Your task to perform on an android device: What's on my calendar today? Image 0: 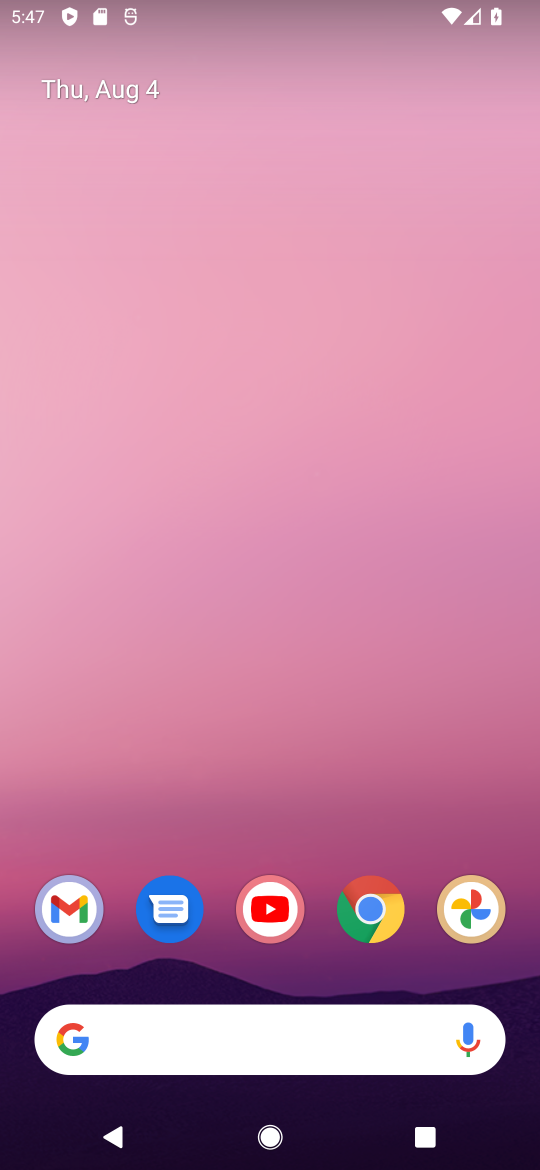
Step 0: drag from (298, 846) to (443, 116)
Your task to perform on an android device: What's on my calendar today? Image 1: 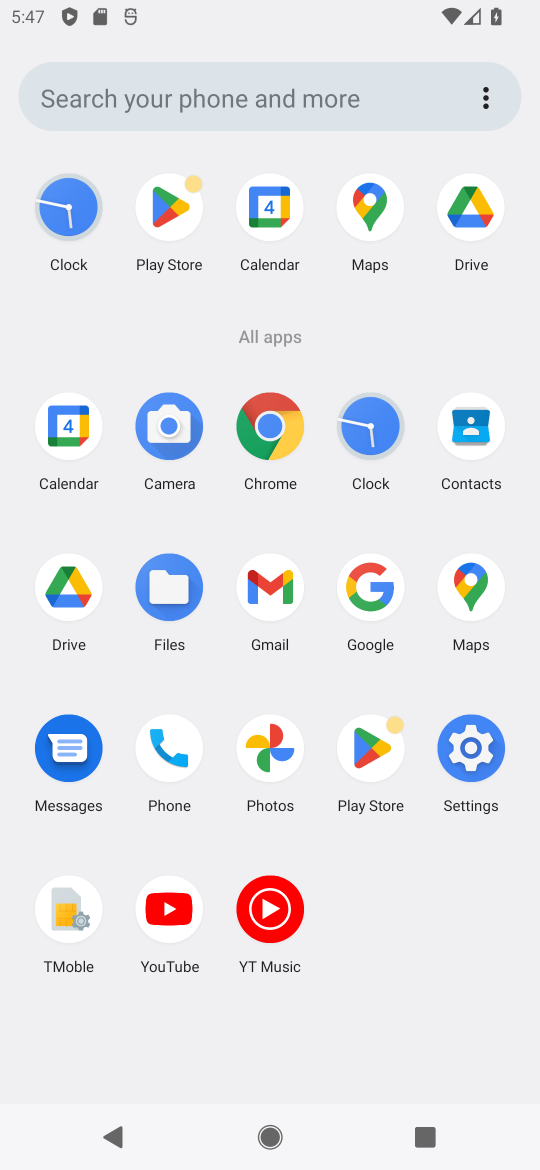
Step 1: click (56, 441)
Your task to perform on an android device: What's on my calendar today? Image 2: 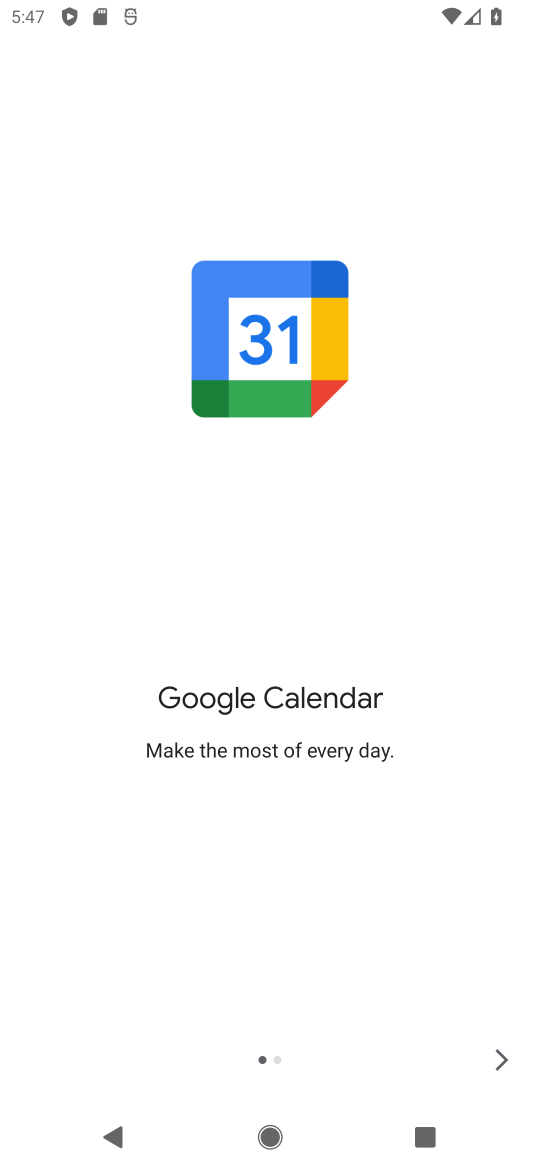
Step 2: click (506, 1052)
Your task to perform on an android device: What's on my calendar today? Image 3: 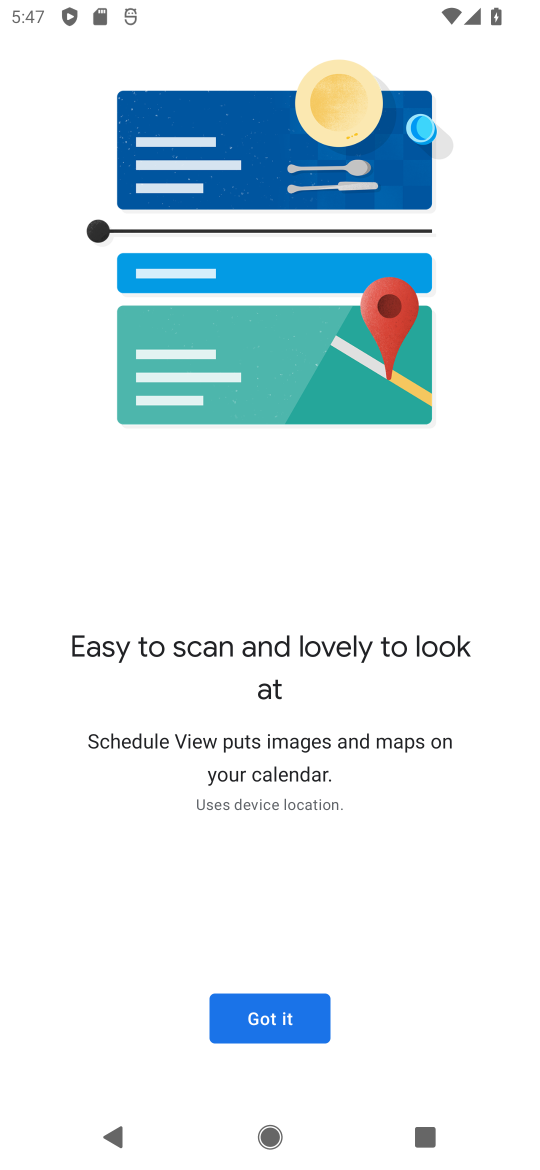
Step 3: click (299, 1004)
Your task to perform on an android device: What's on my calendar today? Image 4: 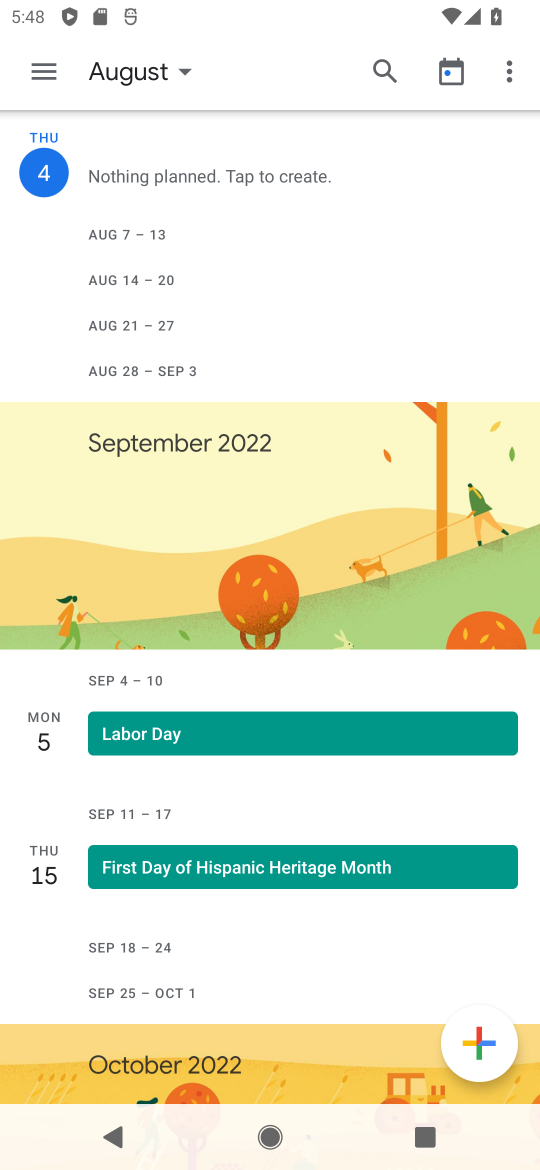
Step 4: click (160, 76)
Your task to perform on an android device: What's on my calendar today? Image 5: 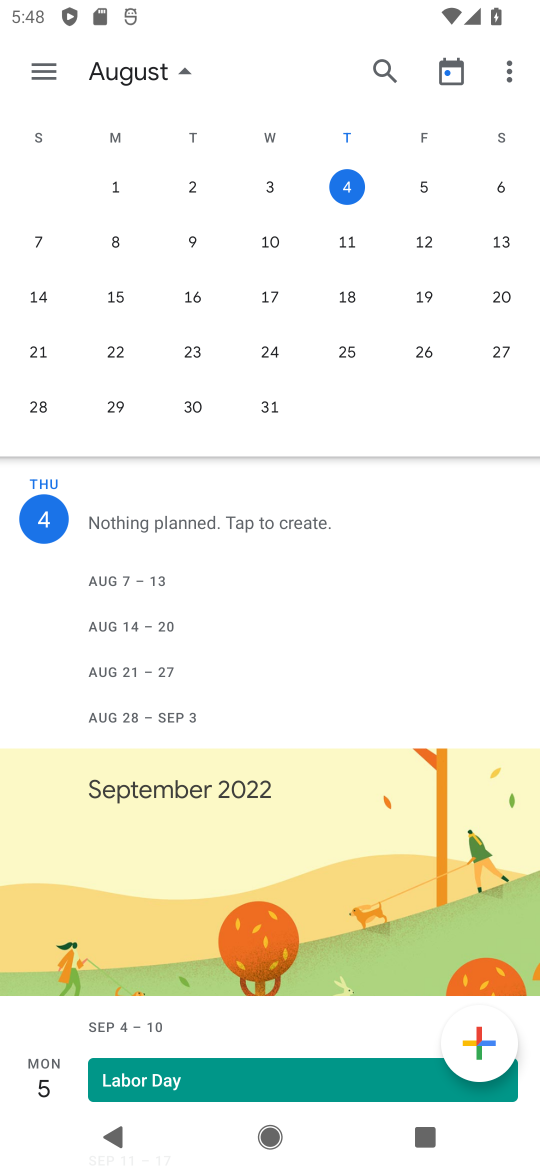
Step 5: task complete